Your task to perform on an android device: turn vacation reply on in the gmail app Image 0: 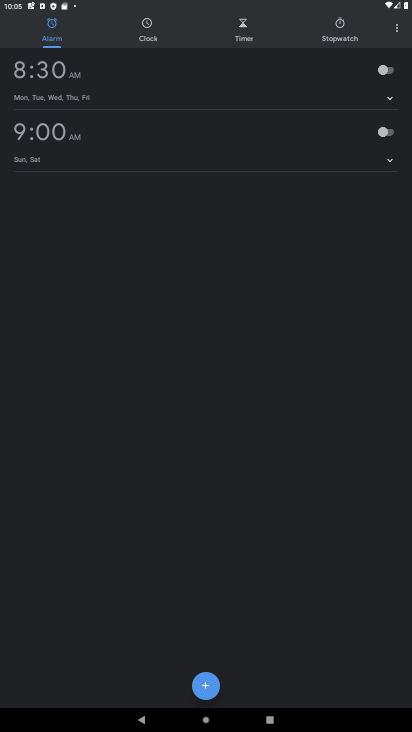
Step 0: press home button
Your task to perform on an android device: turn vacation reply on in the gmail app Image 1: 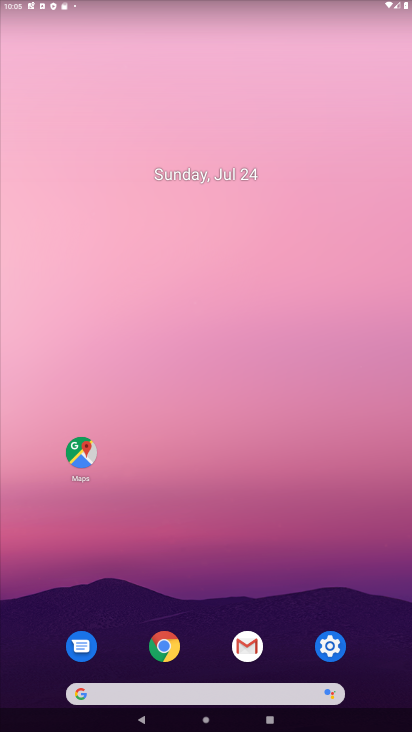
Step 1: click (246, 647)
Your task to perform on an android device: turn vacation reply on in the gmail app Image 2: 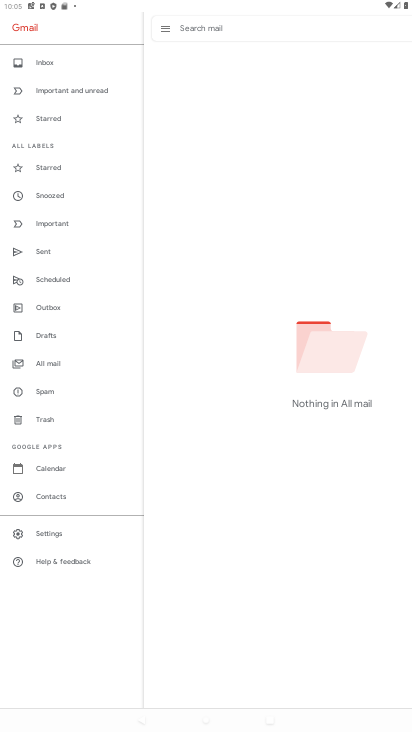
Step 2: click (38, 529)
Your task to perform on an android device: turn vacation reply on in the gmail app Image 3: 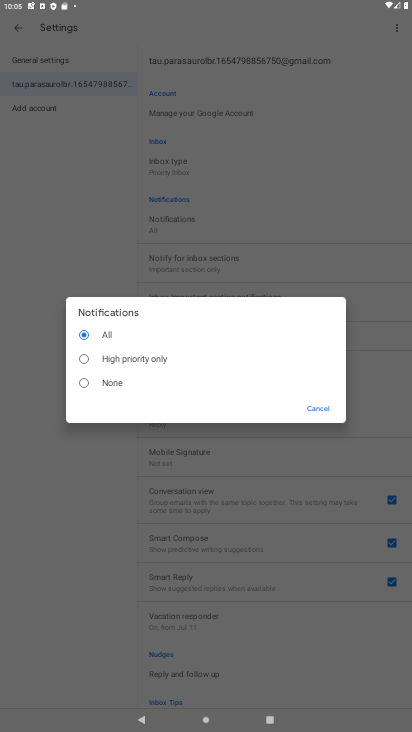
Step 3: click (321, 403)
Your task to perform on an android device: turn vacation reply on in the gmail app Image 4: 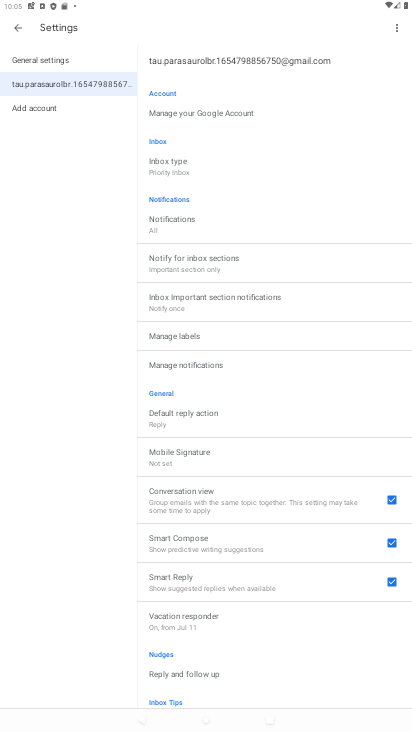
Step 4: click (240, 617)
Your task to perform on an android device: turn vacation reply on in the gmail app Image 5: 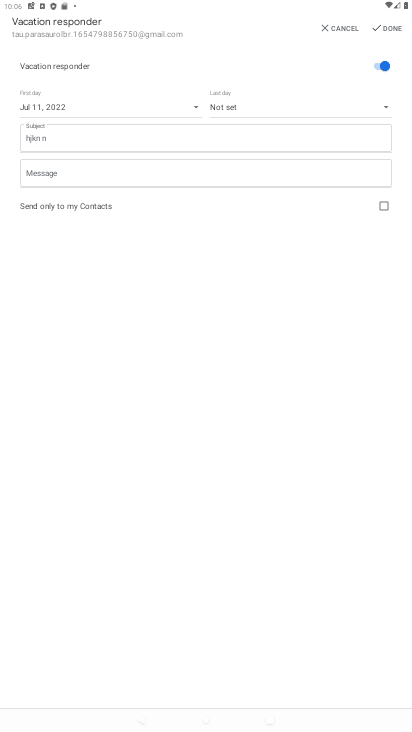
Step 5: task complete